Your task to perform on an android device: turn pop-ups on in chrome Image 0: 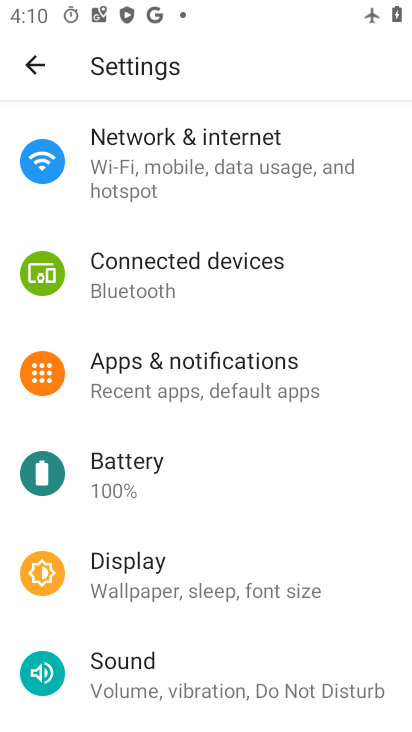
Step 0: press home button
Your task to perform on an android device: turn pop-ups on in chrome Image 1: 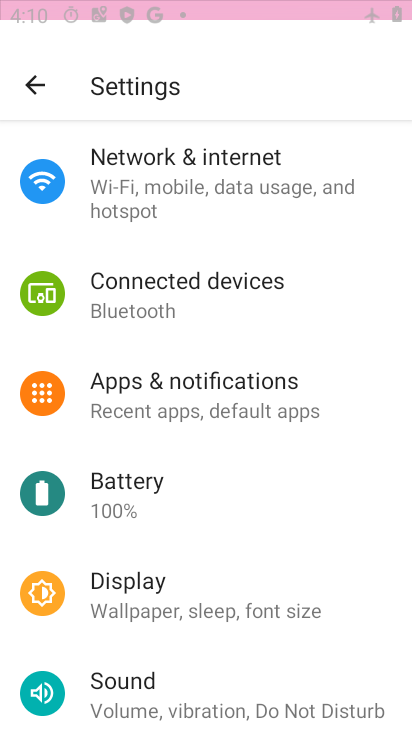
Step 1: press home button
Your task to perform on an android device: turn pop-ups on in chrome Image 2: 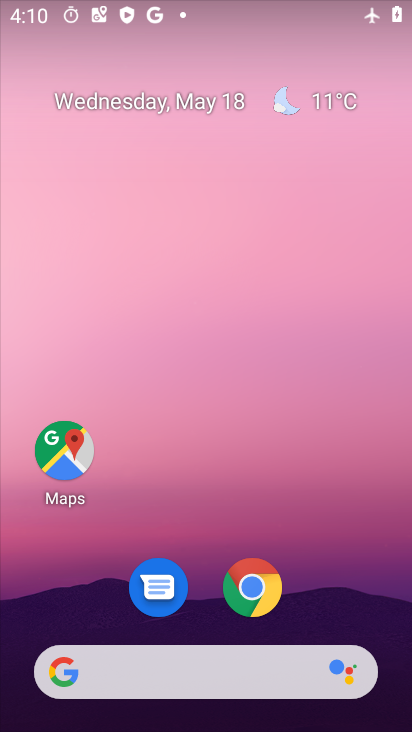
Step 2: drag from (233, 648) to (357, 0)
Your task to perform on an android device: turn pop-ups on in chrome Image 3: 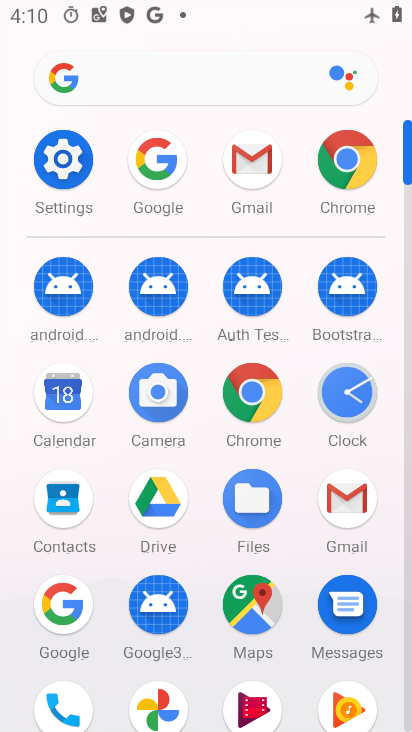
Step 3: click (351, 176)
Your task to perform on an android device: turn pop-ups on in chrome Image 4: 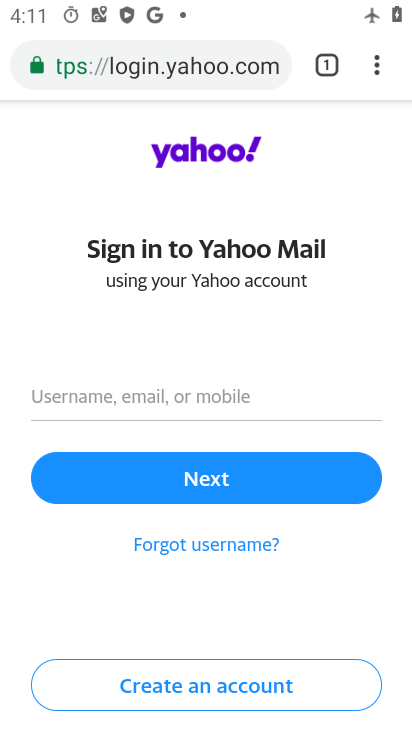
Step 4: click (372, 64)
Your task to perform on an android device: turn pop-ups on in chrome Image 5: 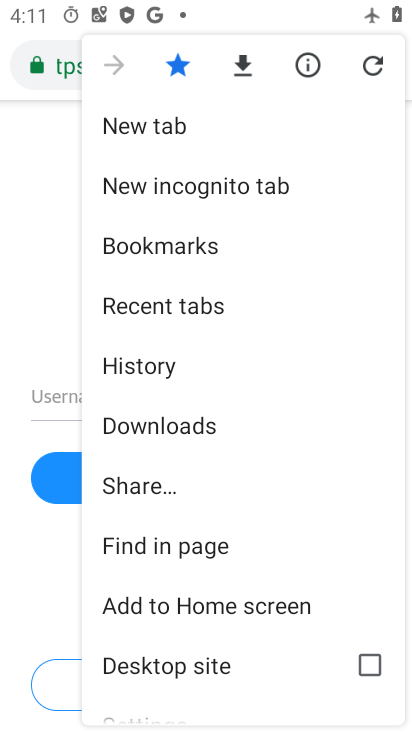
Step 5: drag from (235, 550) to (350, 87)
Your task to perform on an android device: turn pop-ups on in chrome Image 6: 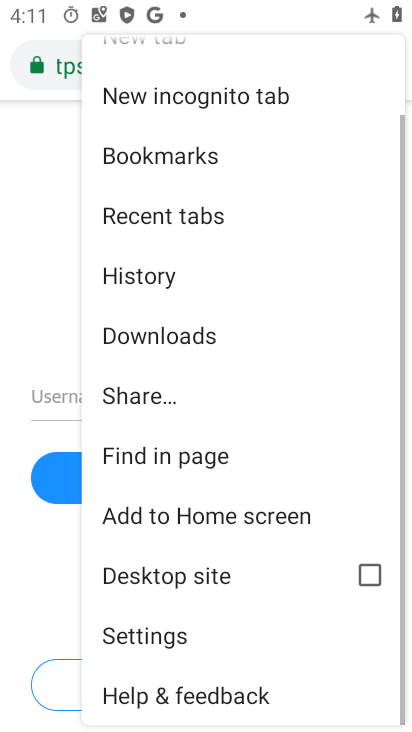
Step 6: click (205, 632)
Your task to perform on an android device: turn pop-ups on in chrome Image 7: 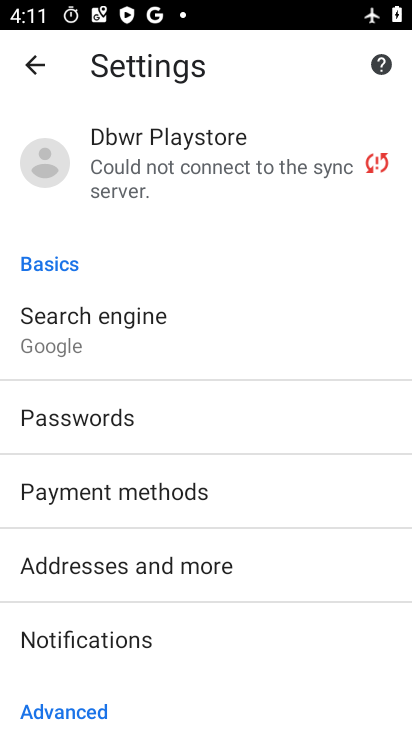
Step 7: drag from (213, 618) to (297, 308)
Your task to perform on an android device: turn pop-ups on in chrome Image 8: 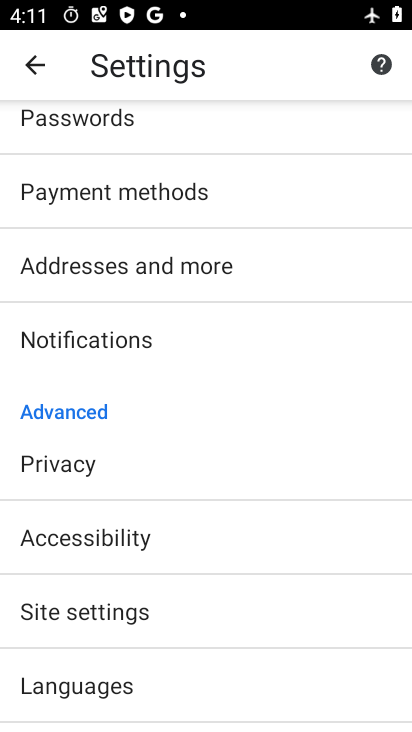
Step 8: click (150, 621)
Your task to perform on an android device: turn pop-ups on in chrome Image 9: 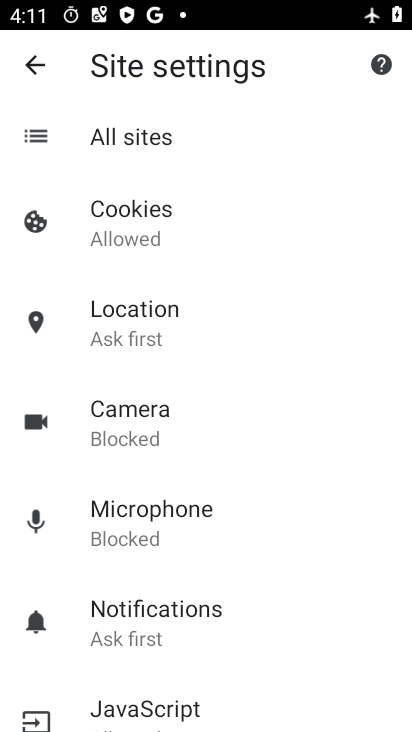
Step 9: drag from (165, 624) to (223, 316)
Your task to perform on an android device: turn pop-ups on in chrome Image 10: 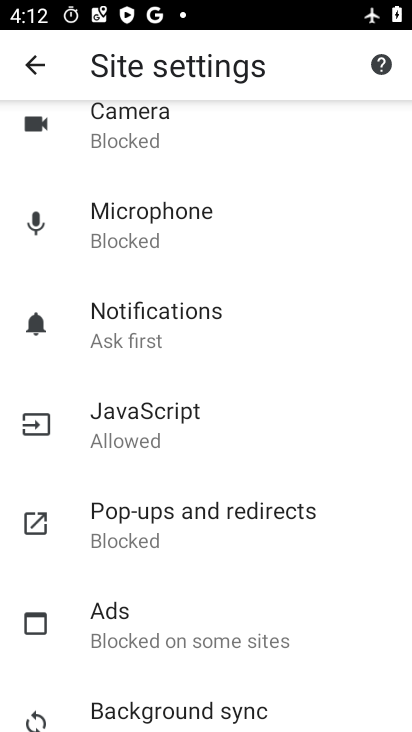
Step 10: click (144, 549)
Your task to perform on an android device: turn pop-ups on in chrome Image 11: 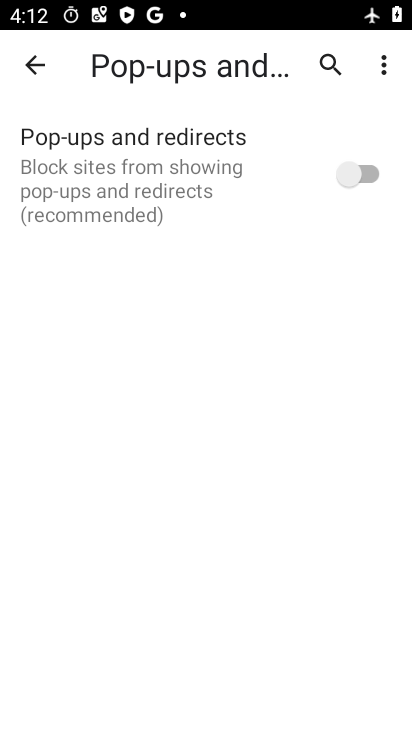
Step 11: click (341, 177)
Your task to perform on an android device: turn pop-ups on in chrome Image 12: 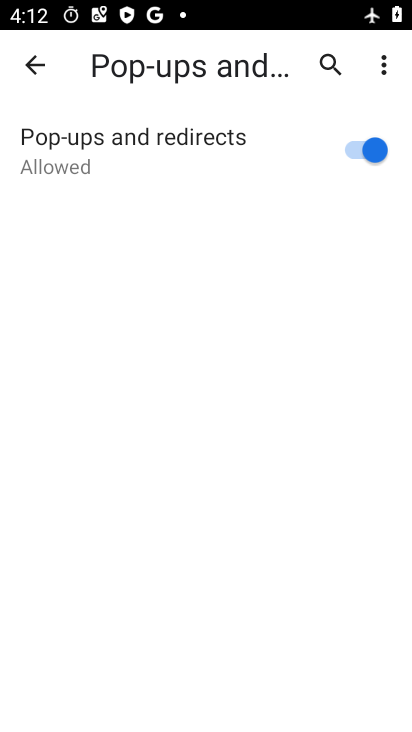
Step 12: task complete